Your task to perform on an android device: Go to Google Image 0: 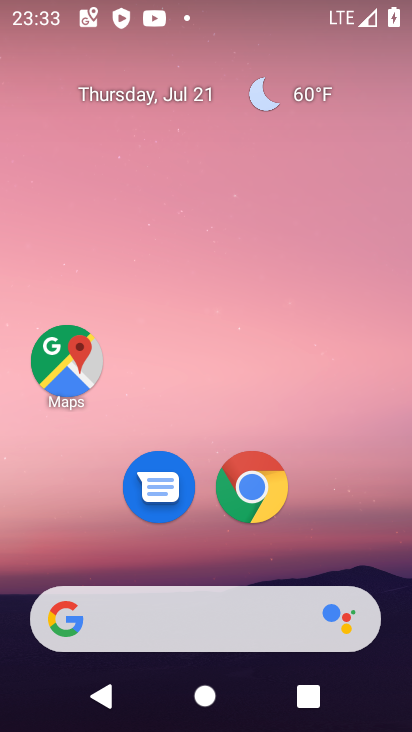
Step 0: drag from (180, 560) to (211, 2)
Your task to perform on an android device: Go to Google Image 1: 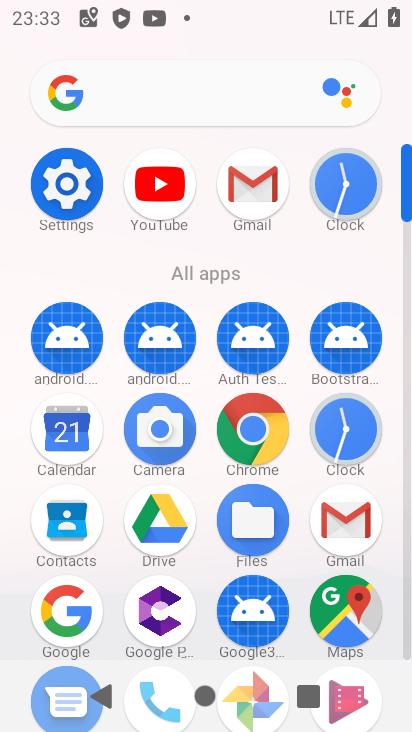
Step 1: click (69, 605)
Your task to perform on an android device: Go to Google Image 2: 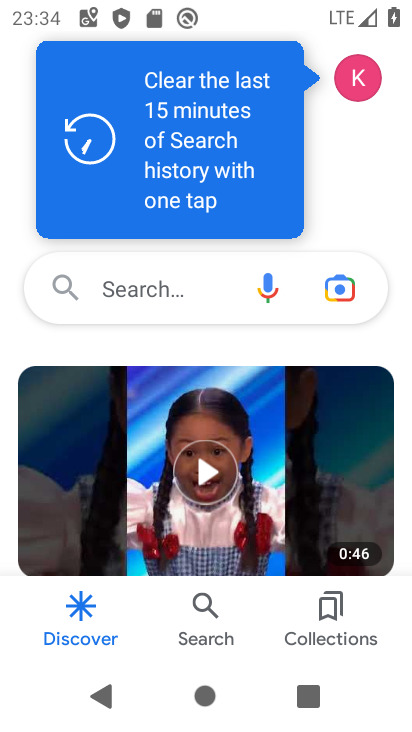
Step 2: task complete